Your task to perform on an android device: Open Yahoo.com Image 0: 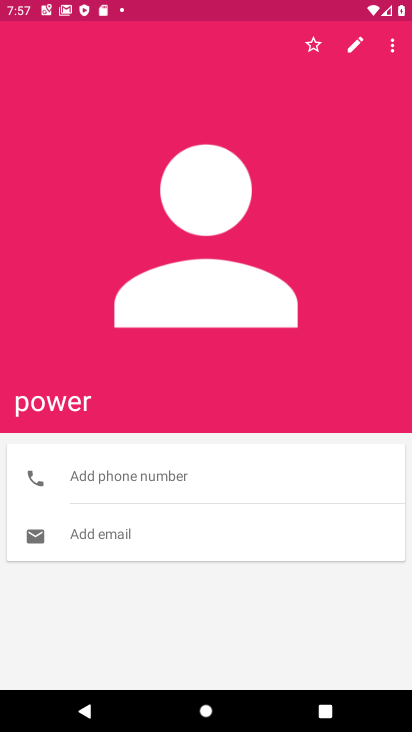
Step 0: press home button
Your task to perform on an android device: Open Yahoo.com Image 1: 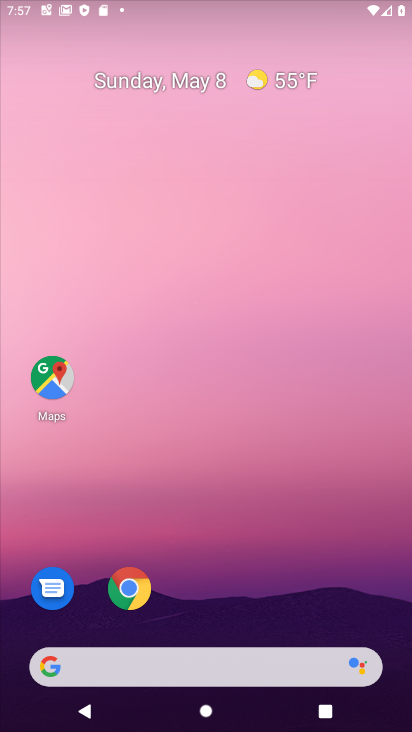
Step 1: drag from (331, 591) to (252, 21)
Your task to perform on an android device: Open Yahoo.com Image 2: 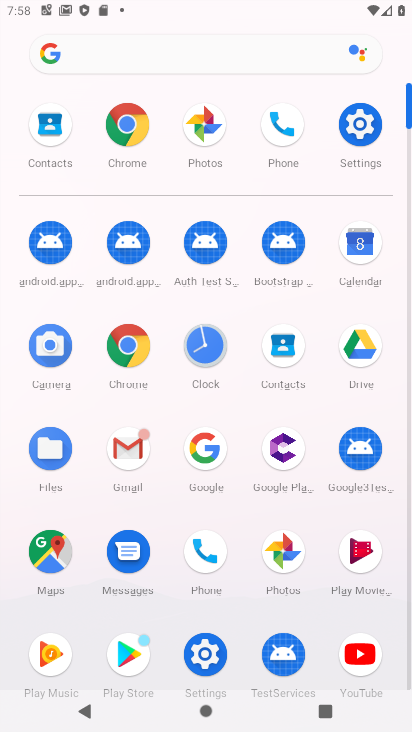
Step 2: click (131, 126)
Your task to perform on an android device: Open Yahoo.com Image 3: 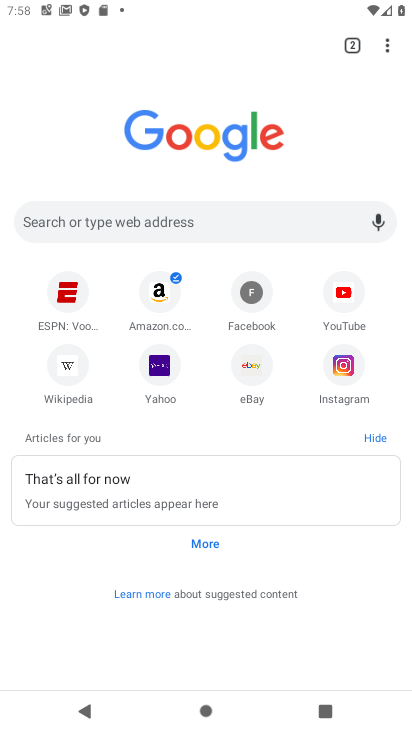
Step 3: click (162, 367)
Your task to perform on an android device: Open Yahoo.com Image 4: 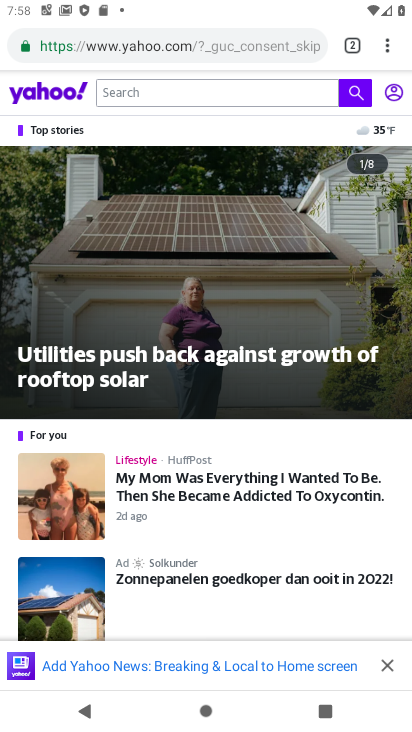
Step 4: task complete